Your task to perform on an android device: turn on priority inbox in the gmail app Image 0: 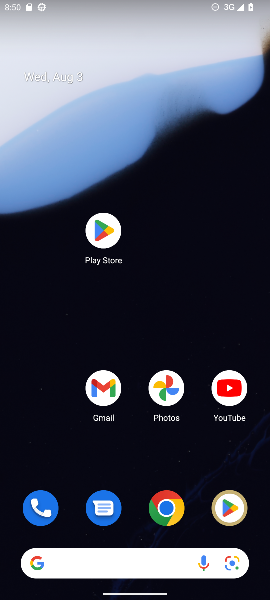
Step 0: drag from (122, 535) to (122, 50)
Your task to perform on an android device: turn on priority inbox in the gmail app Image 1: 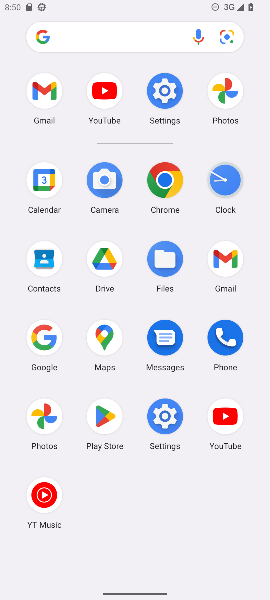
Step 1: click (235, 258)
Your task to perform on an android device: turn on priority inbox in the gmail app Image 2: 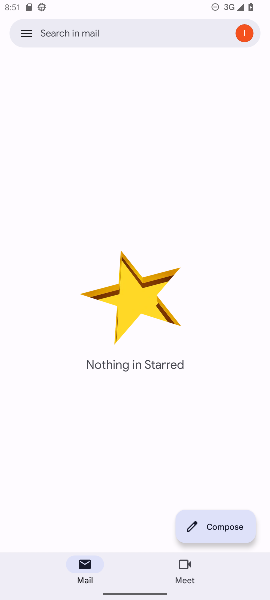
Step 2: click (16, 34)
Your task to perform on an android device: turn on priority inbox in the gmail app Image 3: 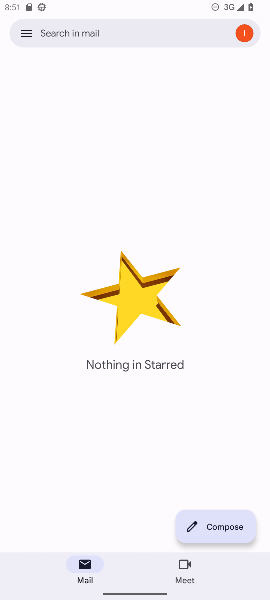
Step 3: click (21, 34)
Your task to perform on an android device: turn on priority inbox in the gmail app Image 4: 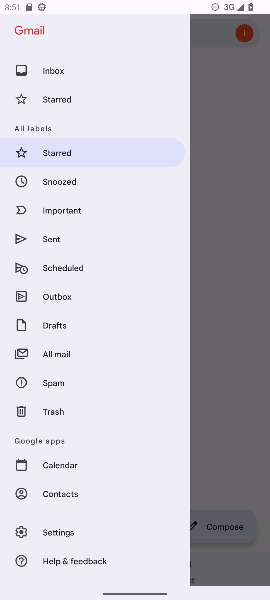
Step 4: click (69, 529)
Your task to perform on an android device: turn on priority inbox in the gmail app Image 5: 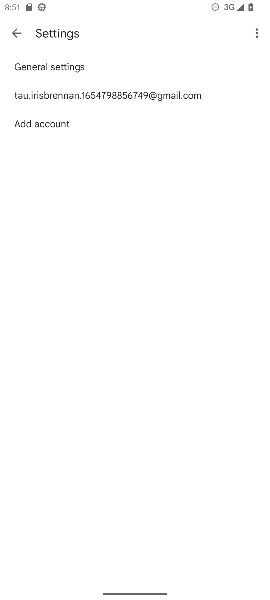
Step 5: click (30, 88)
Your task to perform on an android device: turn on priority inbox in the gmail app Image 6: 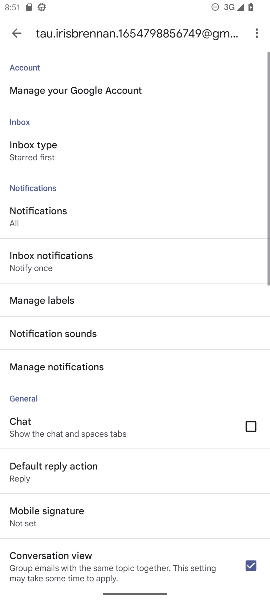
Step 6: click (33, 146)
Your task to perform on an android device: turn on priority inbox in the gmail app Image 7: 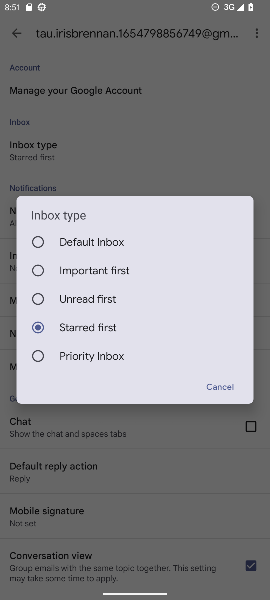
Step 7: click (78, 351)
Your task to perform on an android device: turn on priority inbox in the gmail app Image 8: 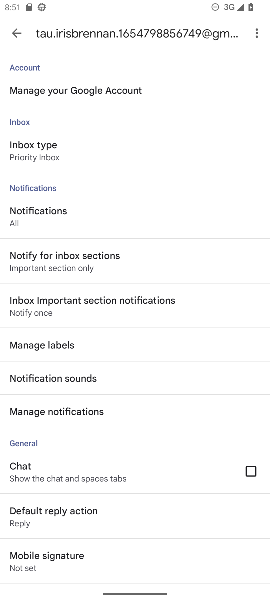
Step 8: task complete